Your task to perform on an android device: Go to privacy settings Image 0: 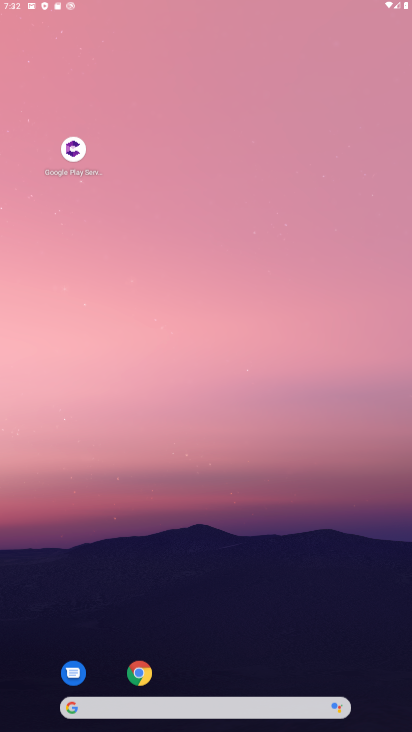
Step 0: drag from (242, 483) to (337, 67)
Your task to perform on an android device: Go to privacy settings Image 1: 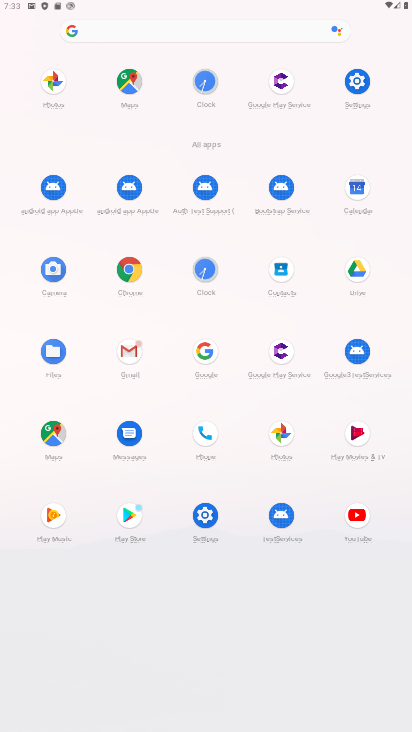
Step 1: click (206, 506)
Your task to perform on an android device: Go to privacy settings Image 2: 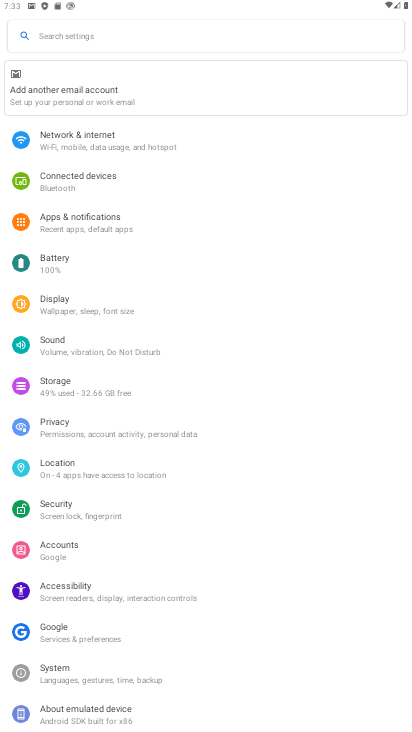
Step 2: click (94, 425)
Your task to perform on an android device: Go to privacy settings Image 3: 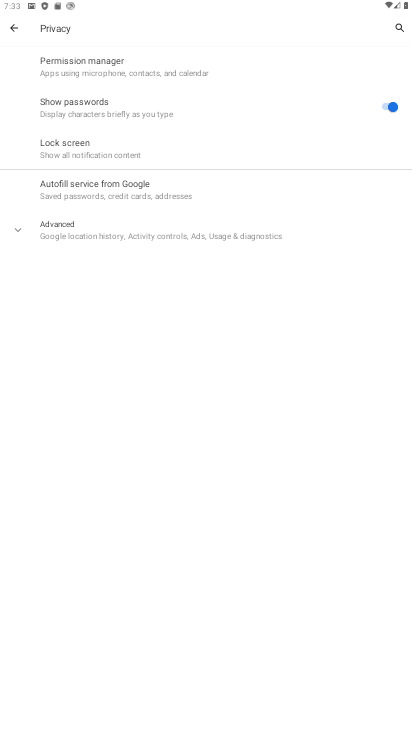
Step 3: task complete